Your task to perform on an android device: change alarm snooze length Image 0: 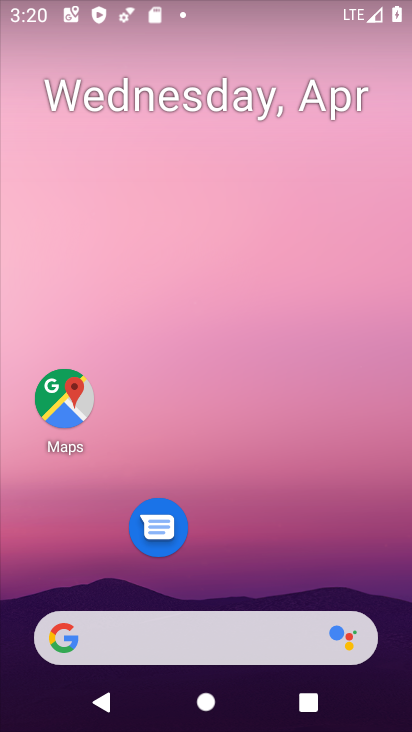
Step 0: drag from (213, 324) to (233, 37)
Your task to perform on an android device: change alarm snooze length Image 1: 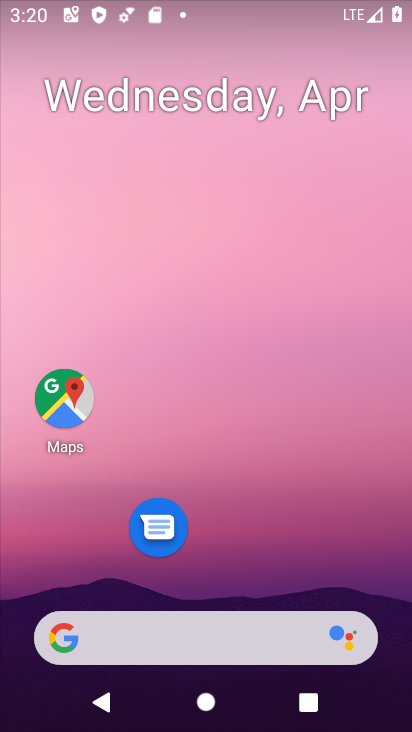
Step 1: drag from (228, 376) to (267, 11)
Your task to perform on an android device: change alarm snooze length Image 2: 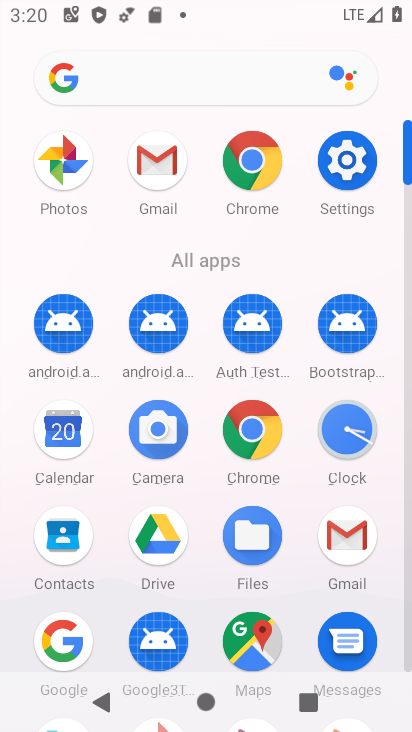
Step 2: click (346, 433)
Your task to perform on an android device: change alarm snooze length Image 3: 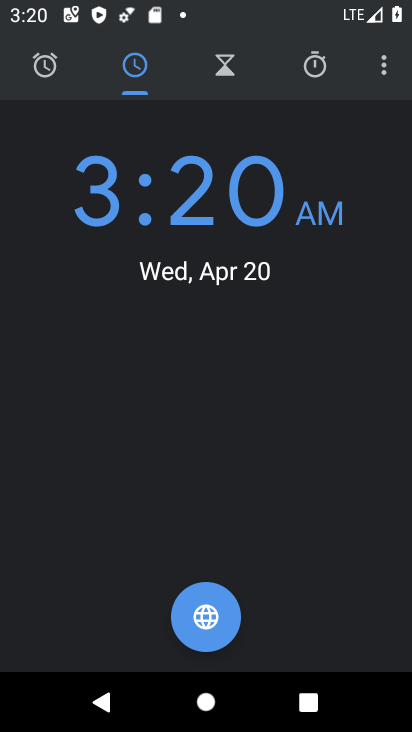
Step 3: click (387, 63)
Your task to perform on an android device: change alarm snooze length Image 4: 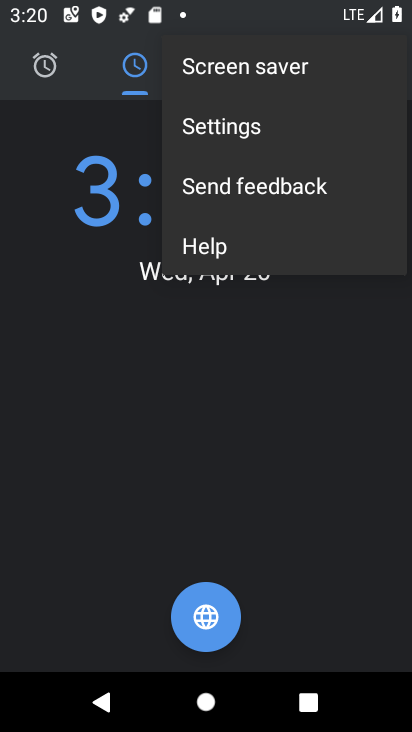
Step 4: click (225, 139)
Your task to perform on an android device: change alarm snooze length Image 5: 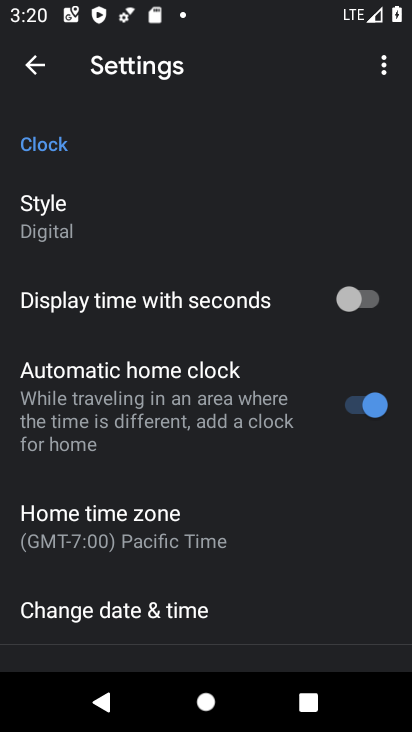
Step 5: drag from (130, 573) to (189, 157)
Your task to perform on an android device: change alarm snooze length Image 6: 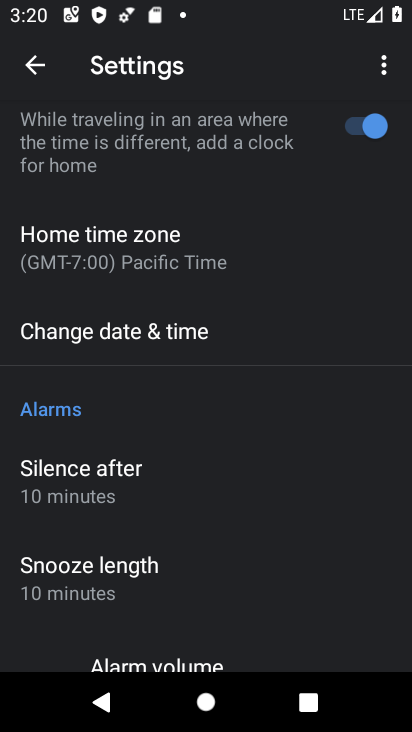
Step 6: click (144, 607)
Your task to perform on an android device: change alarm snooze length Image 7: 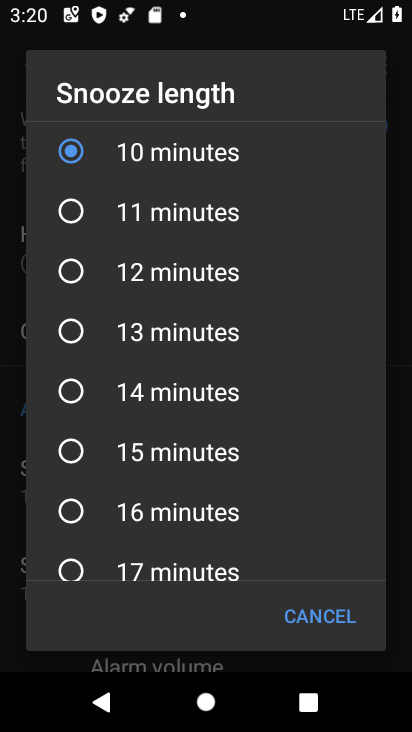
Step 7: click (71, 212)
Your task to perform on an android device: change alarm snooze length Image 8: 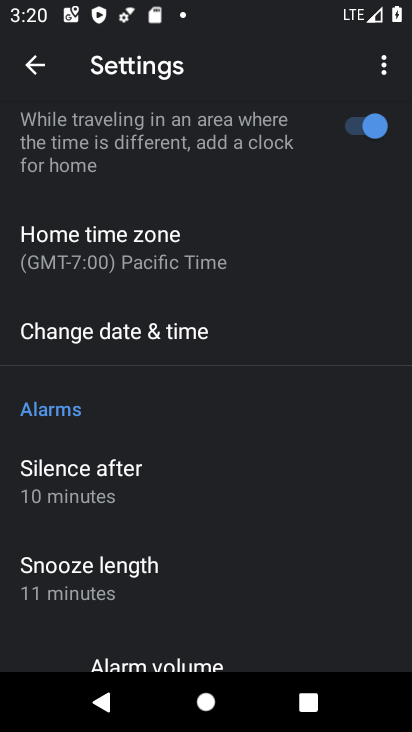
Step 8: task complete